Your task to perform on an android device: Search for Italian restaurants on Maps Image 0: 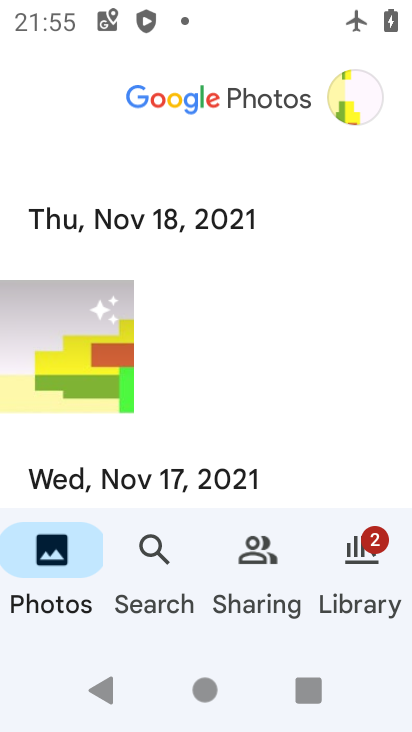
Step 0: press home button
Your task to perform on an android device: Search for Italian restaurants on Maps Image 1: 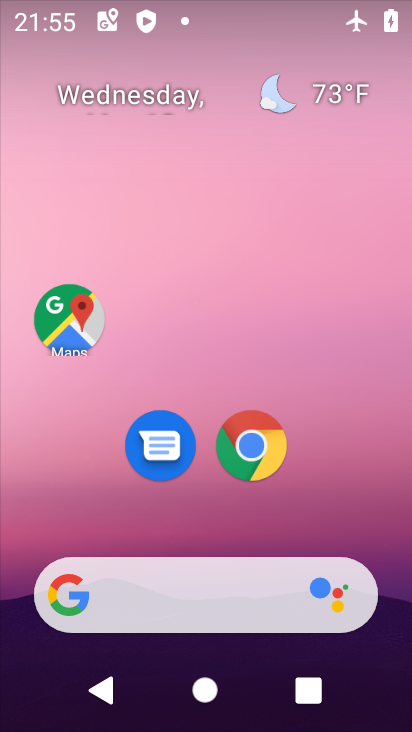
Step 1: drag from (275, 493) to (269, 190)
Your task to perform on an android device: Search for Italian restaurants on Maps Image 2: 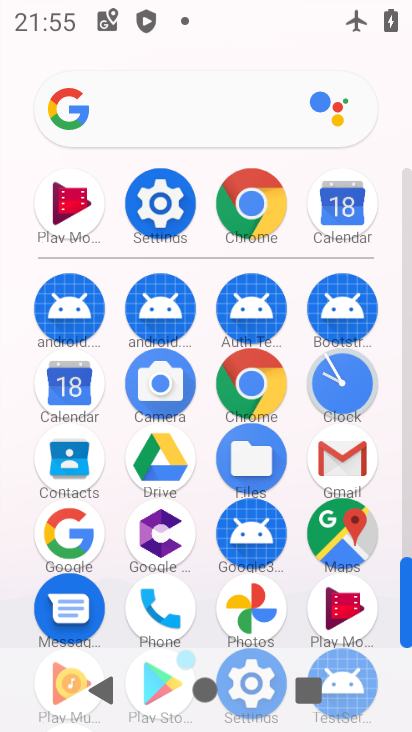
Step 2: click (338, 528)
Your task to perform on an android device: Search for Italian restaurants on Maps Image 3: 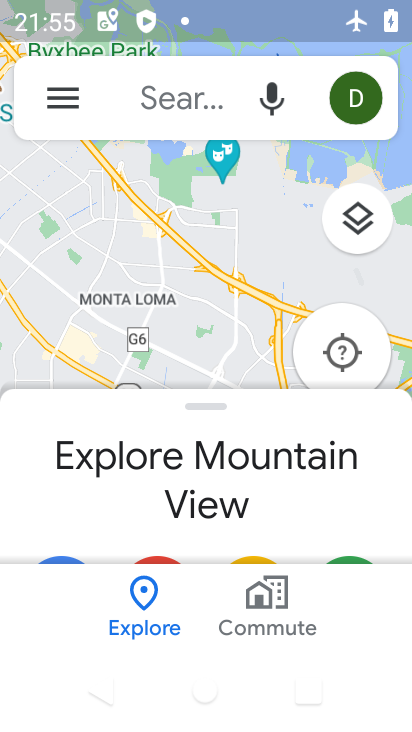
Step 3: click (195, 119)
Your task to perform on an android device: Search for Italian restaurants on Maps Image 4: 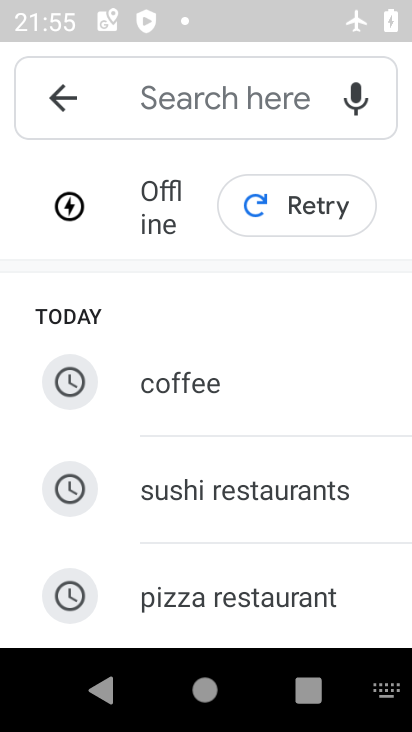
Step 4: click (194, 92)
Your task to perform on an android device: Search for Italian restaurants on Maps Image 5: 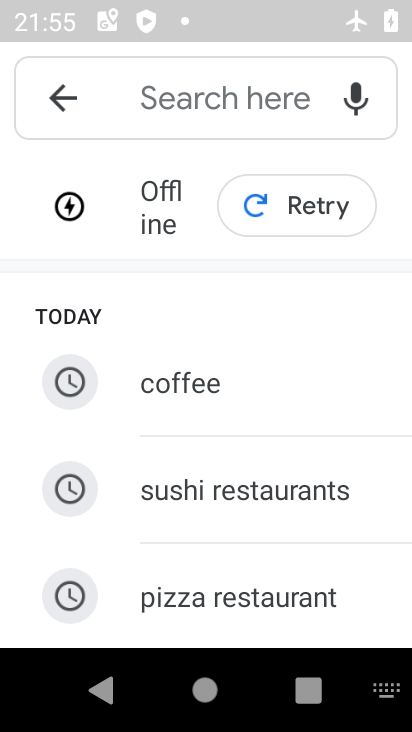
Step 5: type "Italian restaurants"
Your task to perform on an android device: Search for Italian restaurants on Maps Image 6: 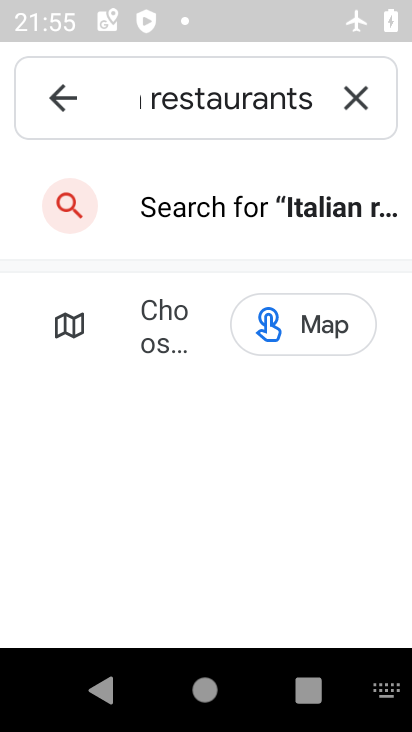
Step 6: click (307, 193)
Your task to perform on an android device: Search for Italian restaurants on Maps Image 7: 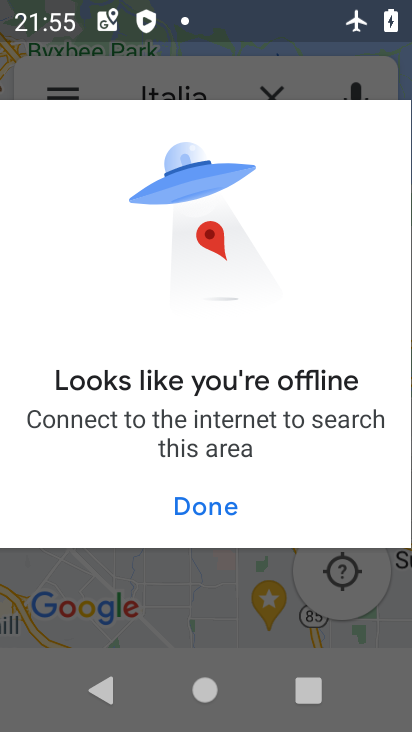
Step 7: click (213, 505)
Your task to perform on an android device: Search for Italian restaurants on Maps Image 8: 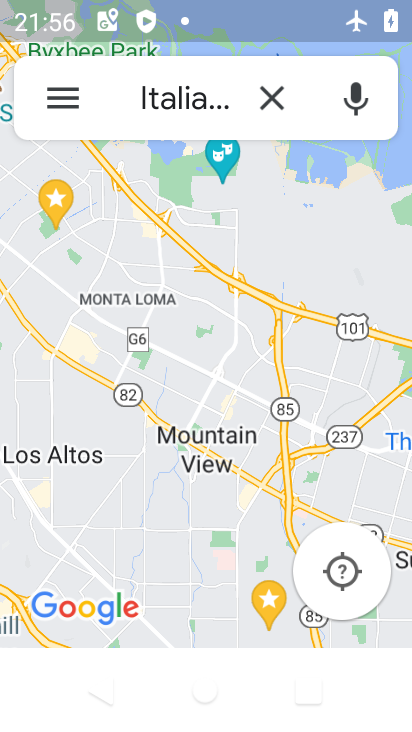
Step 8: task complete